Your task to perform on an android device: Go to privacy settings Image 0: 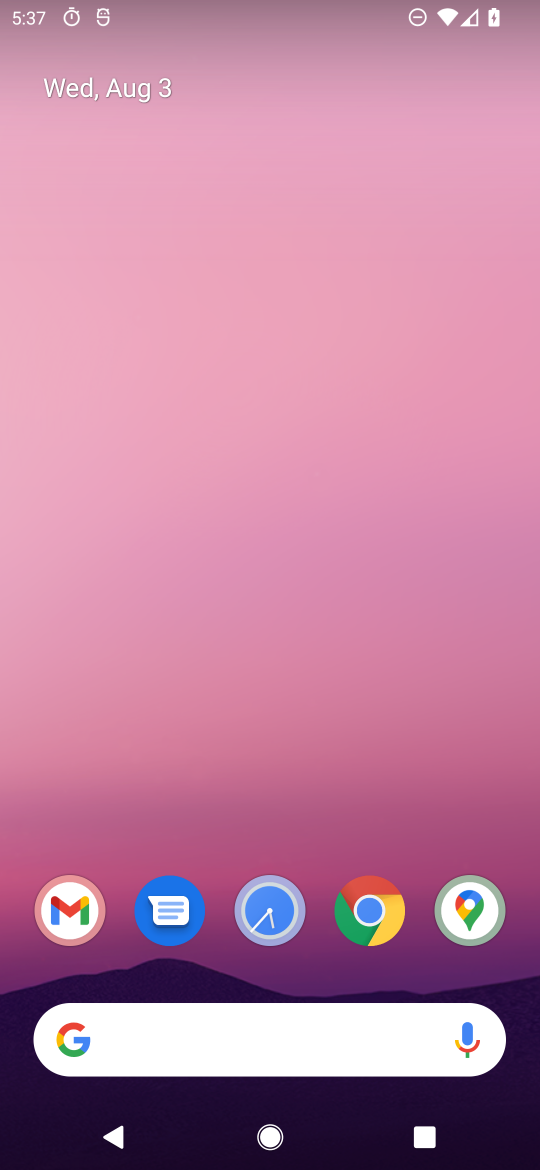
Step 0: drag from (116, 935) to (227, 183)
Your task to perform on an android device: Go to privacy settings Image 1: 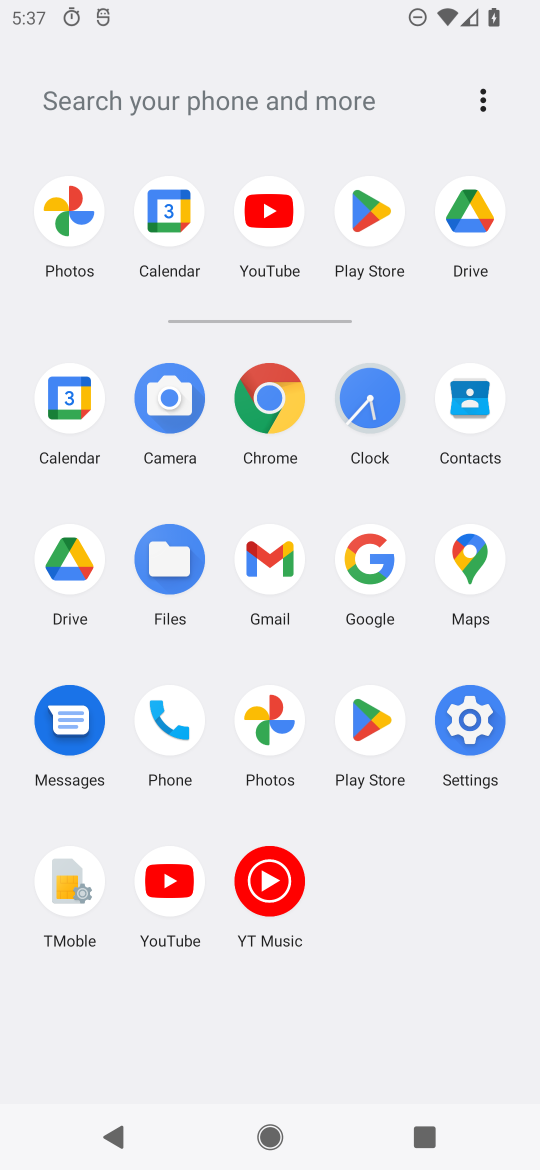
Step 1: click (458, 710)
Your task to perform on an android device: Go to privacy settings Image 2: 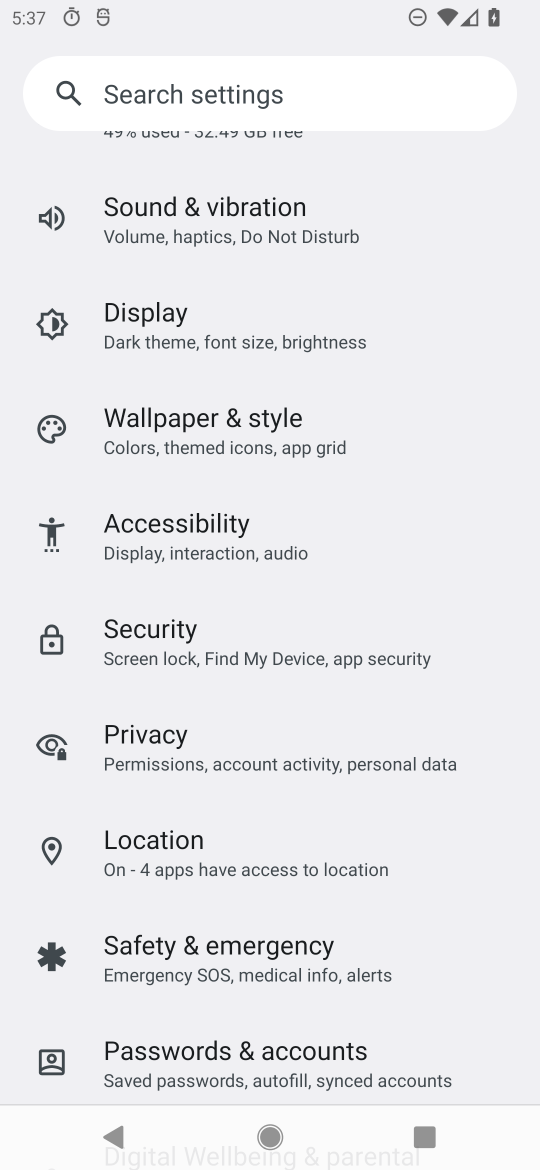
Step 2: click (170, 745)
Your task to perform on an android device: Go to privacy settings Image 3: 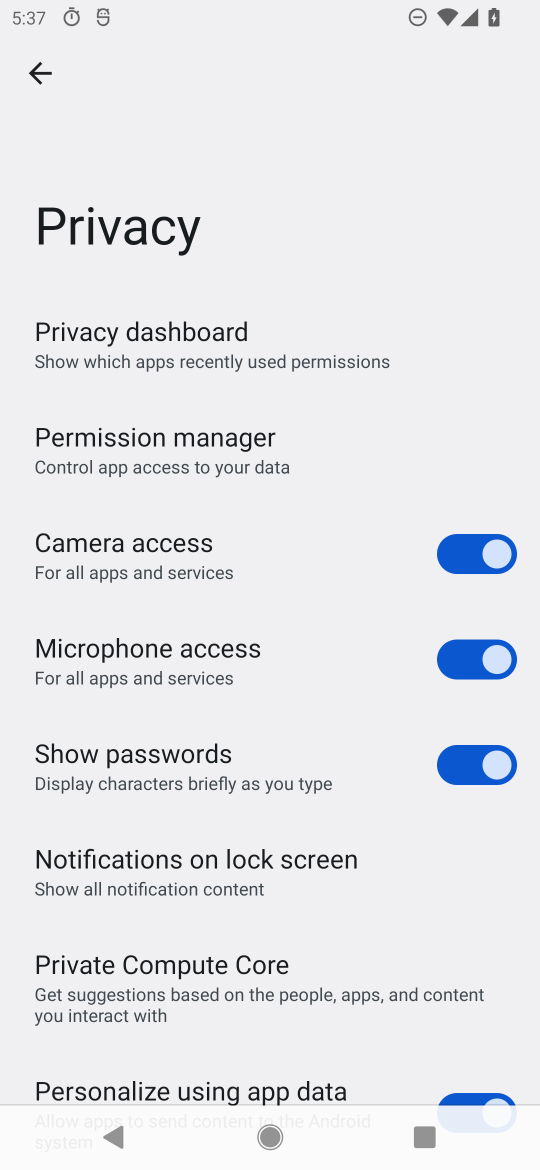
Step 3: task complete